Your task to perform on an android device: What's the weather going to be tomorrow? Image 0: 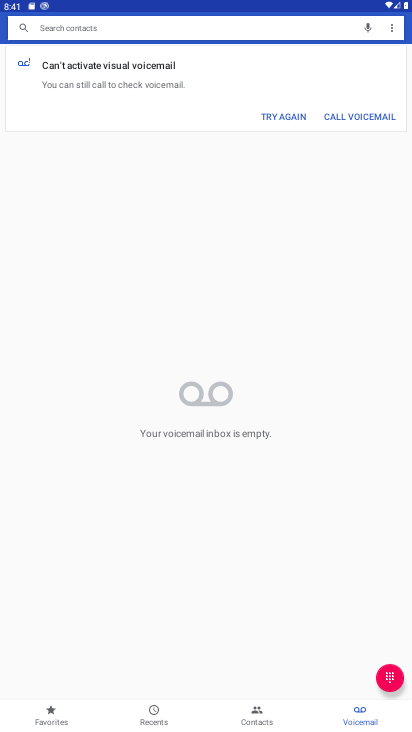
Step 0: press home button
Your task to perform on an android device: What's the weather going to be tomorrow? Image 1: 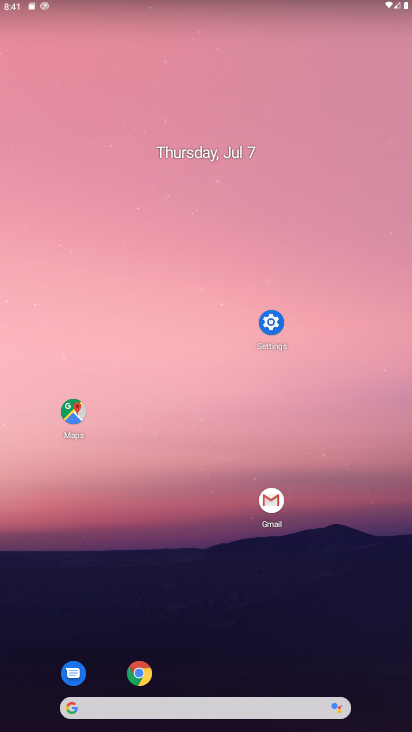
Step 1: drag from (377, 650) to (350, 99)
Your task to perform on an android device: What's the weather going to be tomorrow? Image 2: 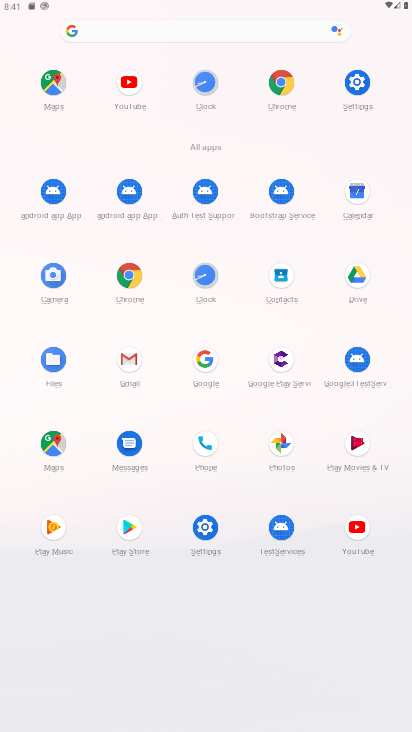
Step 2: click (358, 192)
Your task to perform on an android device: What's the weather going to be tomorrow? Image 3: 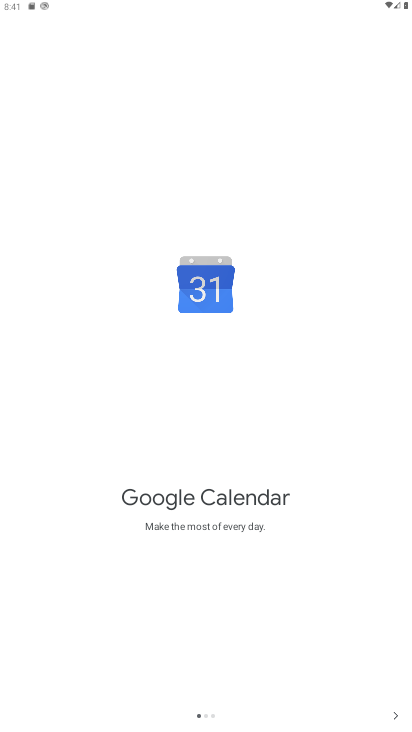
Step 3: task complete